Your task to perform on an android device: toggle pop-ups in chrome Image 0: 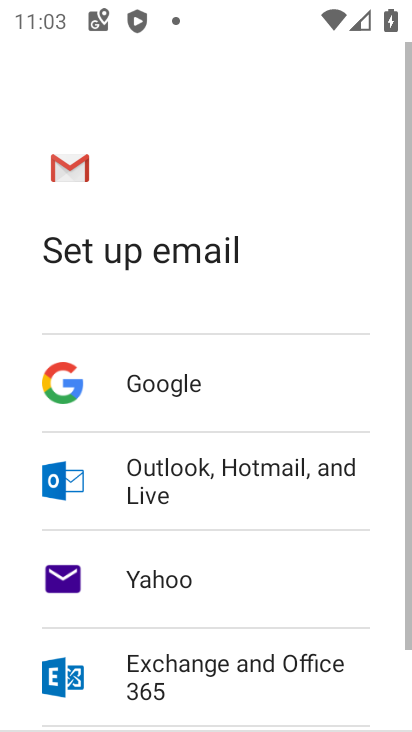
Step 0: press home button
Your task to perform on an android device: toggle pop-ups in chrome Image 1: 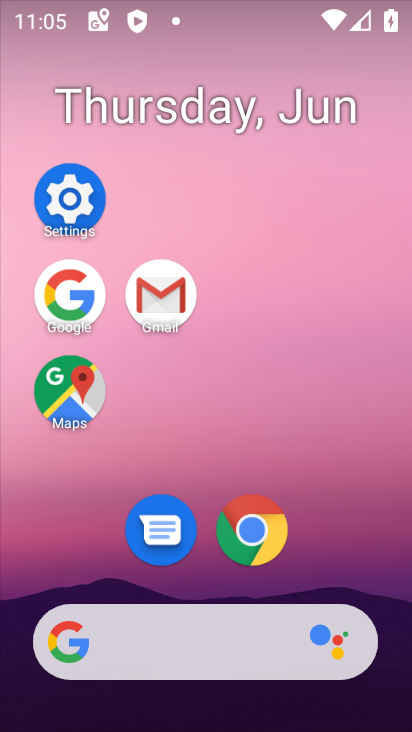
Step 1: click (266, 546)
Your task to perform on an android device: toggle pop-ups in chrome Image 2: 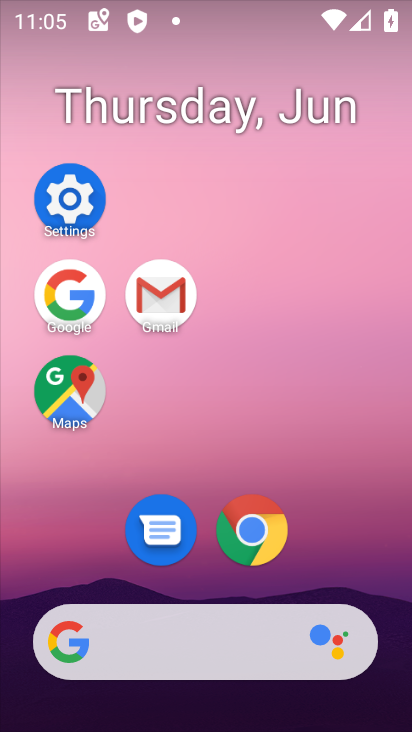
Step 2: click (241, 543)
Your task to perform on an android device: toggle pop-ups in chrome Image 3: 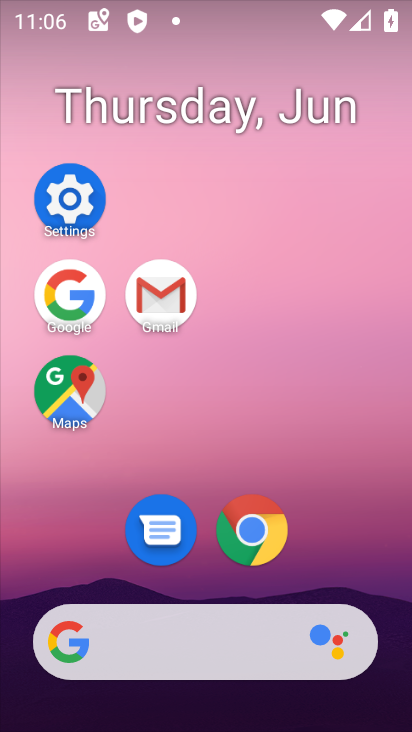
Step 3: click (273, 523)
Your task to perform on an android device: toggle pop-ups in chrome Image 4: 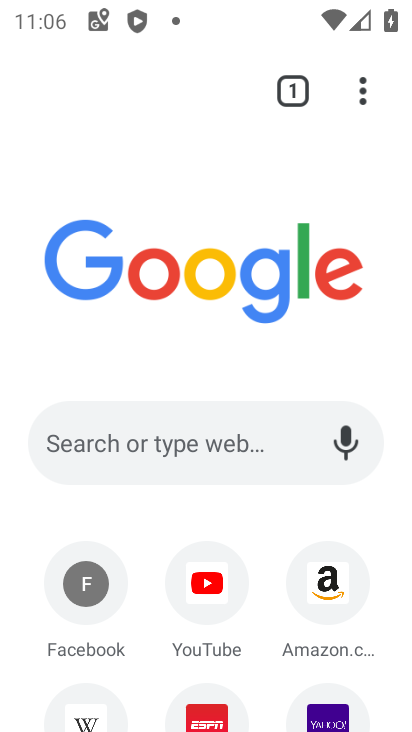
Step 4: click (363, 94)
Your task to perform on an android device: toggle pop-ups in chrome Image 5: 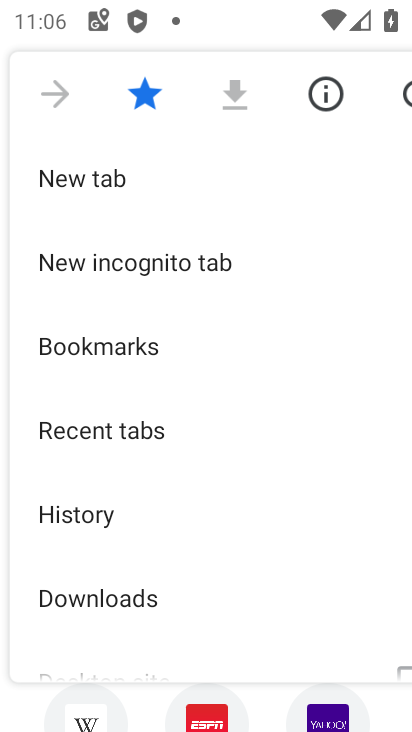
Step 5: drag from (256, 492) to (249, 78)
Your task to perform on an android device: toggle pop-ups in chrome Image 6: 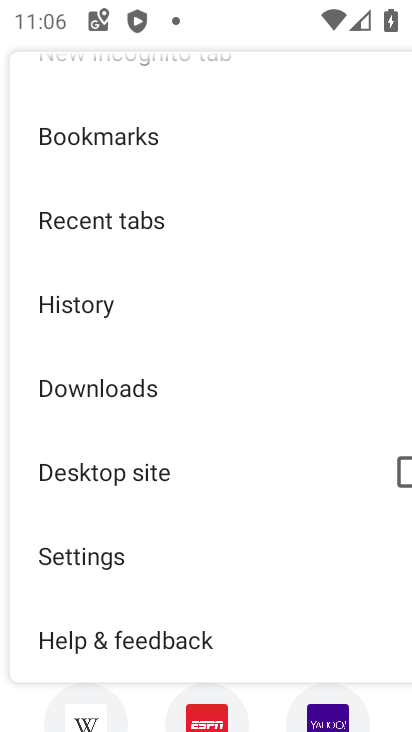
Step 6: click (137, 543)
Your task to perform on an android device: toggle pop-ups in chrome Image 7: 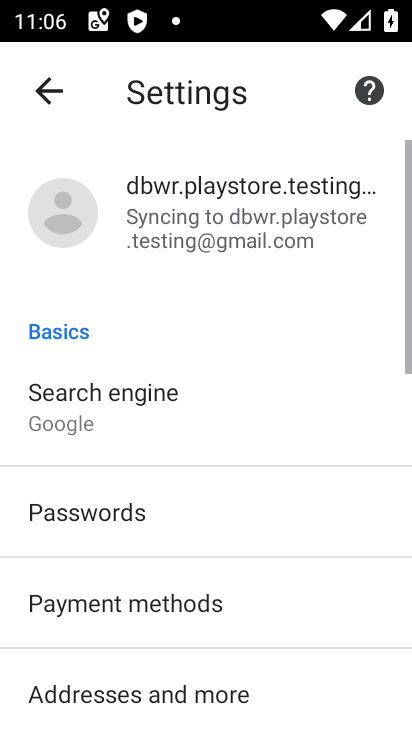
Step 7: drag from (137, 542) to (169, 99)
Your task to perform on an android device: toggle pop-ups in chrome Image 8: 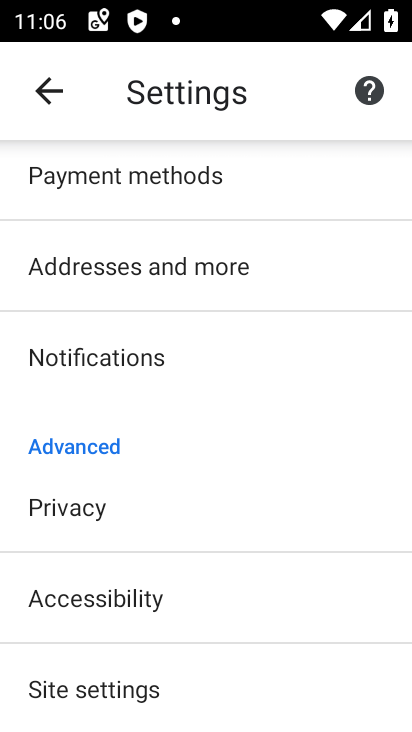
Step 8: drag from (113, 594) to (105, 215)
Your task to perform on an android device: toggle pop-ups in chrome Image 9: 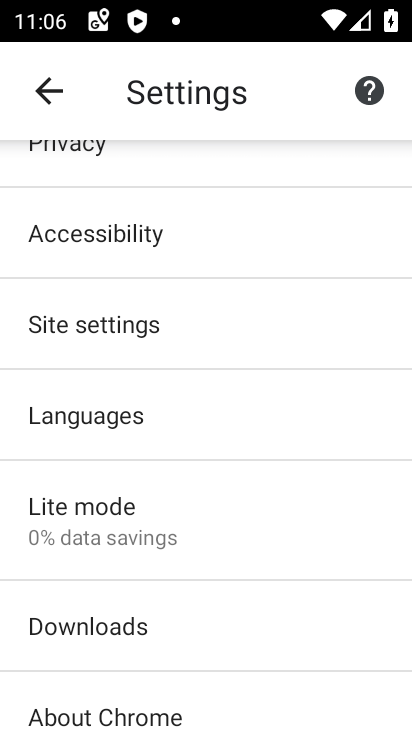
Step 9: drag from (256, 613) to (242, 263)
Your task to perform on an android device: toggle pop-ups in chrome Image 10: 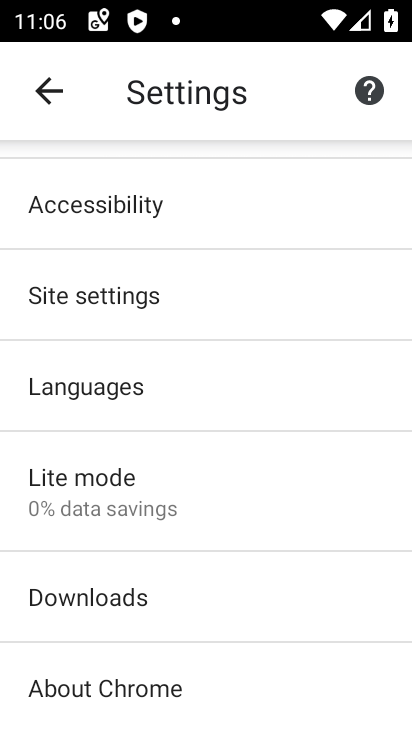
Step 10: drag from (244, 257) to (281, 540)
Your task to perform on an android device: toggle pop-ups in chrome Image 11: 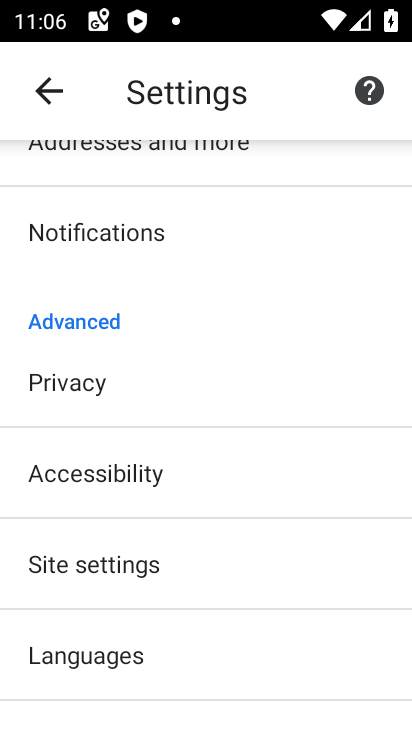
Step 11: click (276, 542)
Your task to perform on an android device: toggle pop-ups in chrome Image 12: 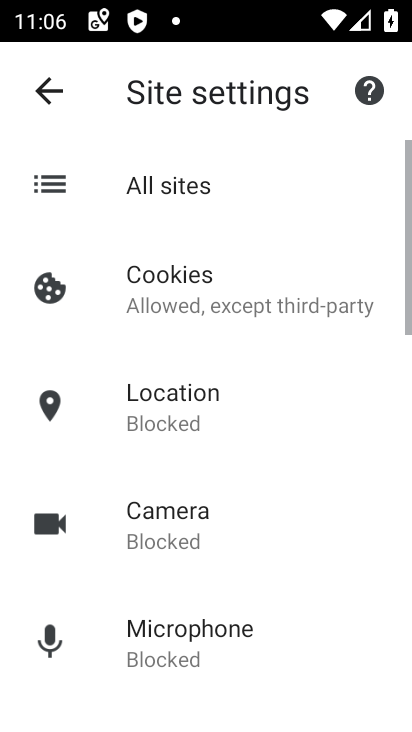
Step 12: drag from (276, 541) to (261, 209)
Your task to perform on an android device: toggle pop-ups in chrome Image 13: 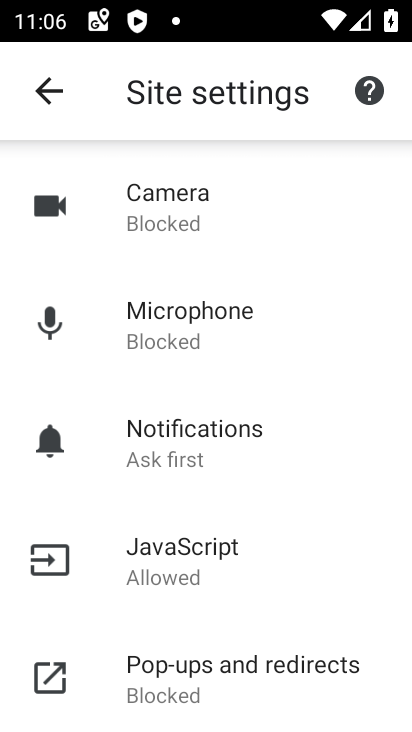
Step 13: drag from (245, 527) to (272, 207)
Your task to perform on an android device: toggle pop-ups in chrome Image 14: 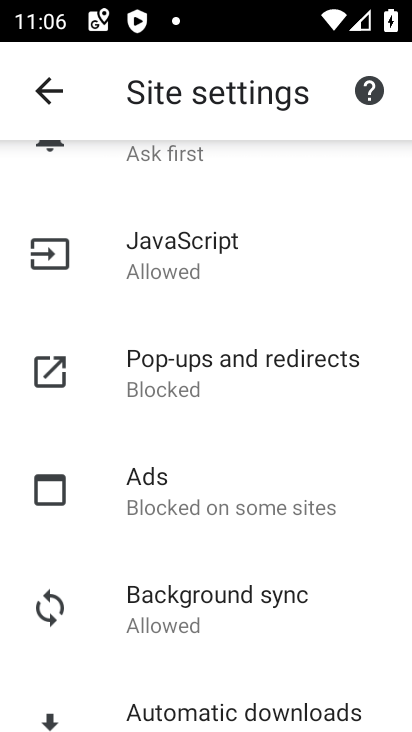
Step 14: click (259, 355)
Your task to perform on an android device: toggle pop-ups in chrome Image 15: 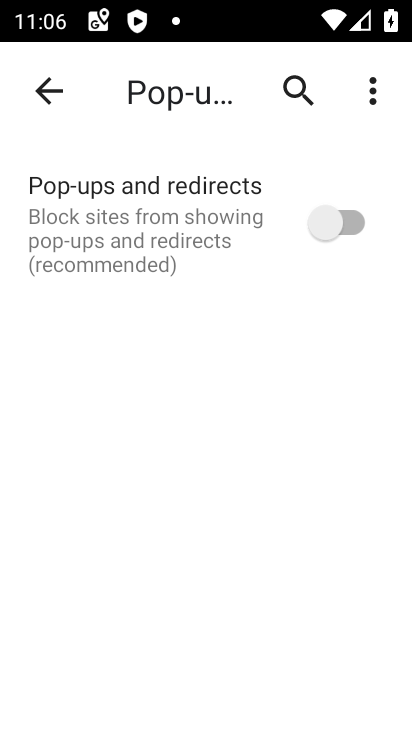
Step 15: click (336, 212)
Your task to perform on an android device: toggle pop-ups in chrome Image 16: 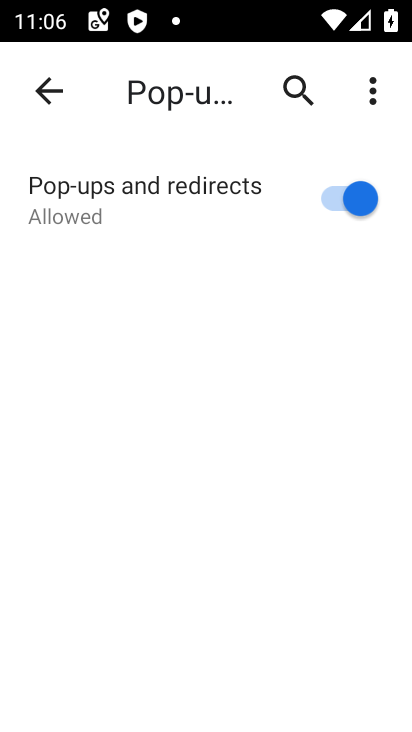
Step 16: task complete